Your task to perform on an android device: Search for the best movies of 2019  Image 0: 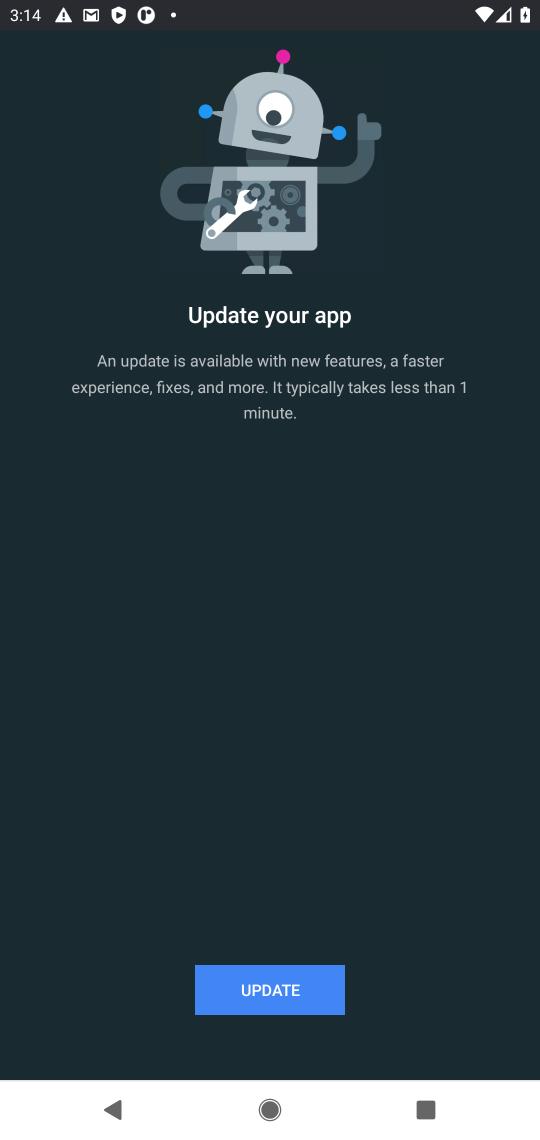
Step 0: press home button
Your task to perform on an android device: Search for the best movies of 2019  Image 1: 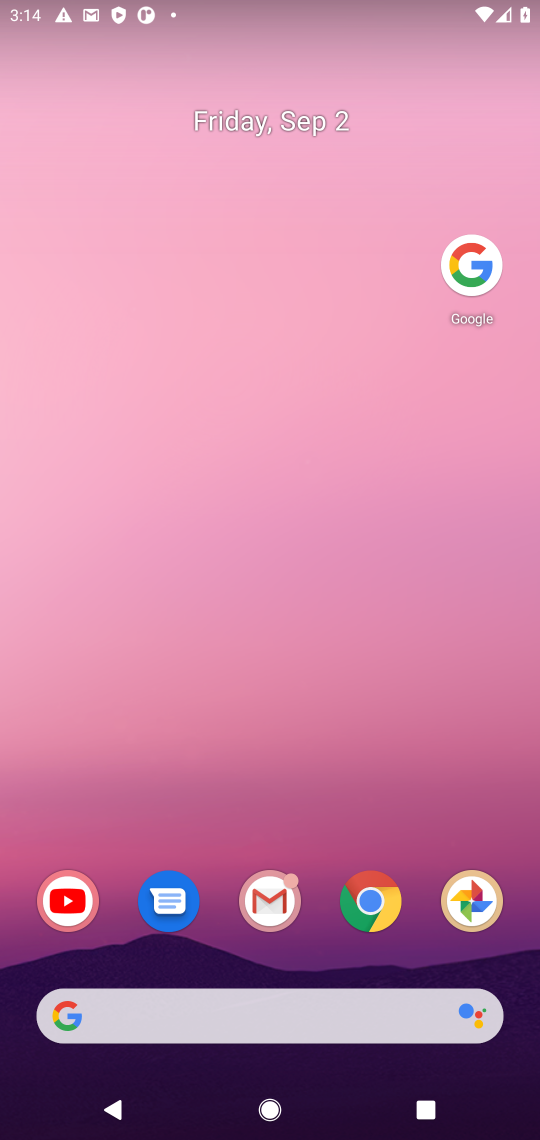
Step 1: click (467, 257)
Your task to perform on an android device: Search for the best movies of 2019  Image 2: 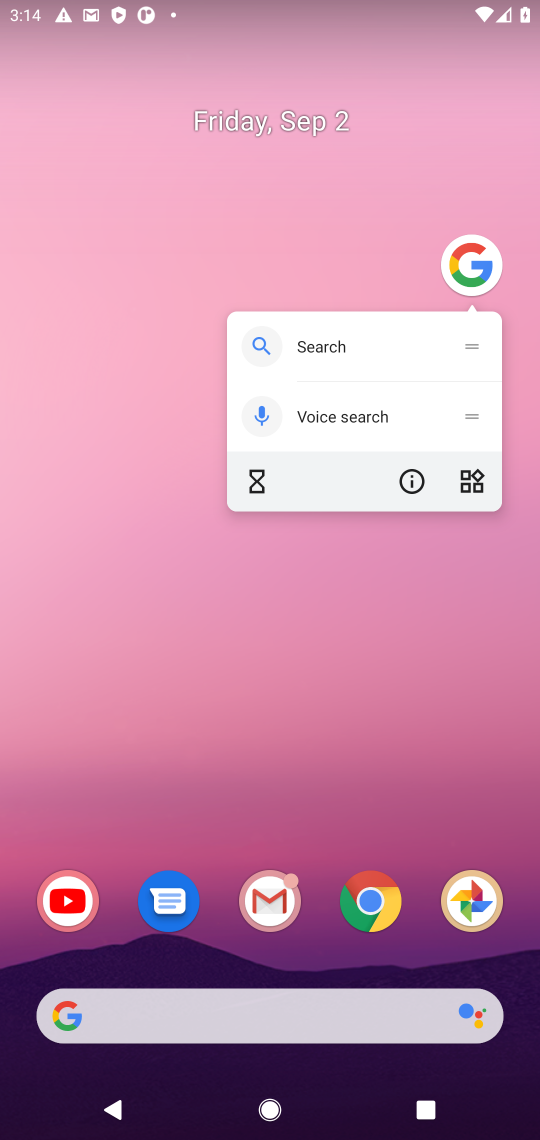
Step 2: click (483, 241)
Your task to perform on an android device: Search for the best movies of 2019  Image 3: 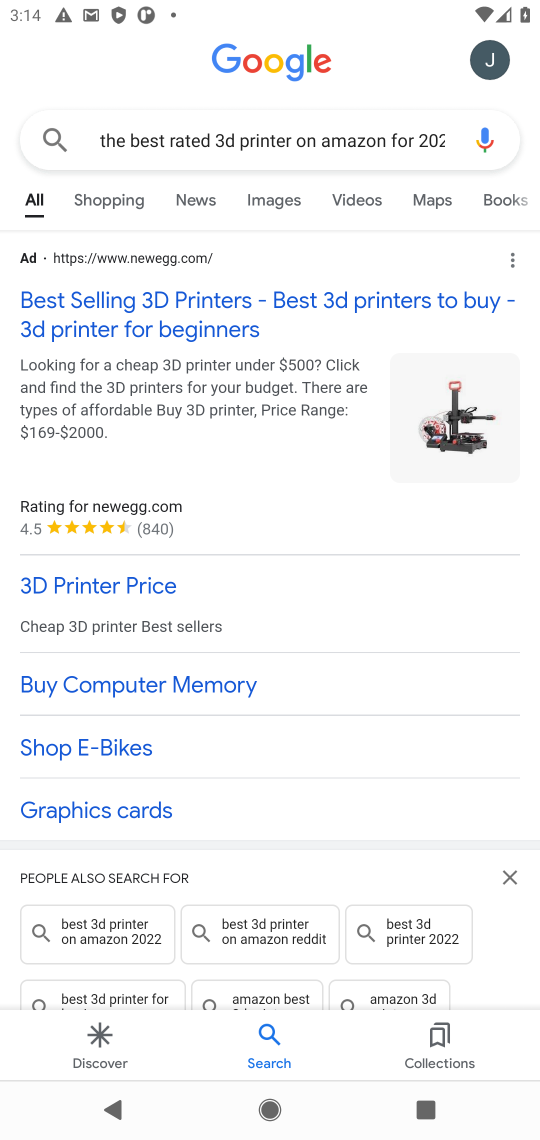
Step 3: click (318, 141)
Your task to perform on an android device: Search for the best movies of 2019  Image 4: 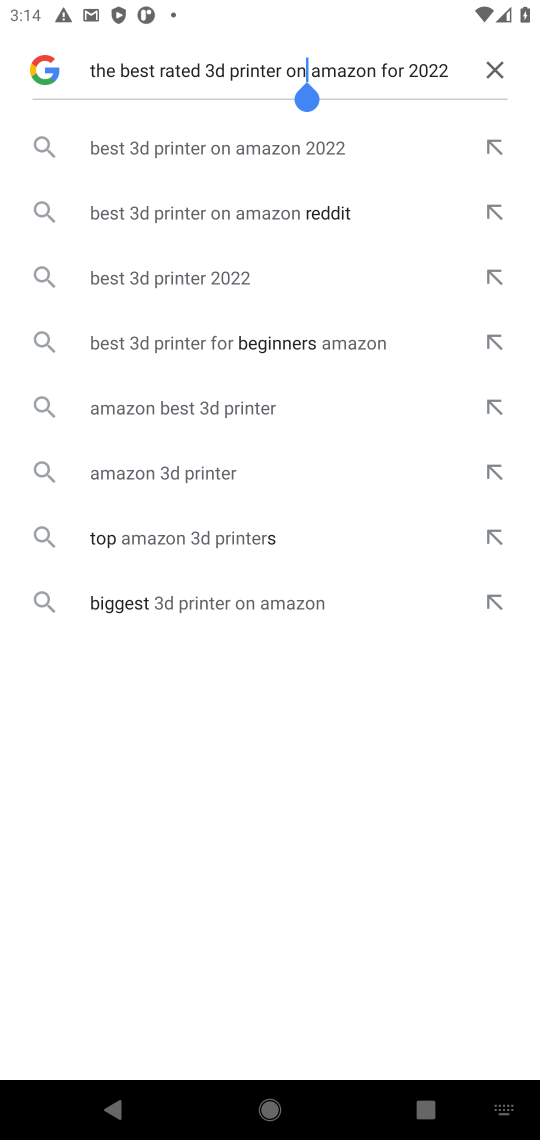
Step 4: click (497, 78)
Your task to perform on an android device: Search for the best movies of 2019  Image 5: 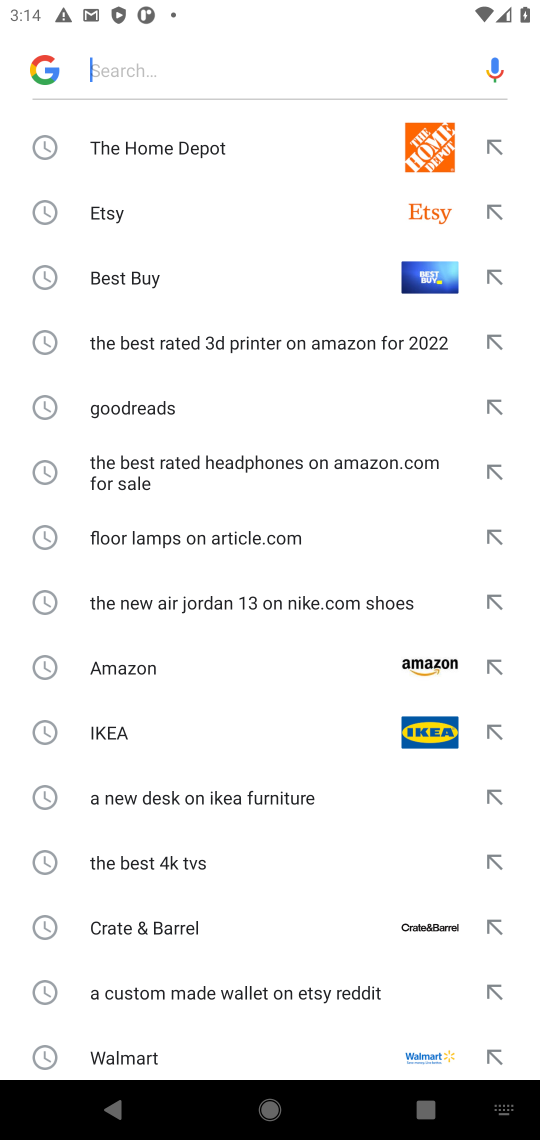
Step 5: click (217, 77)
Your task to perform on an android device: Search for the best movies of 2019  Image 6: 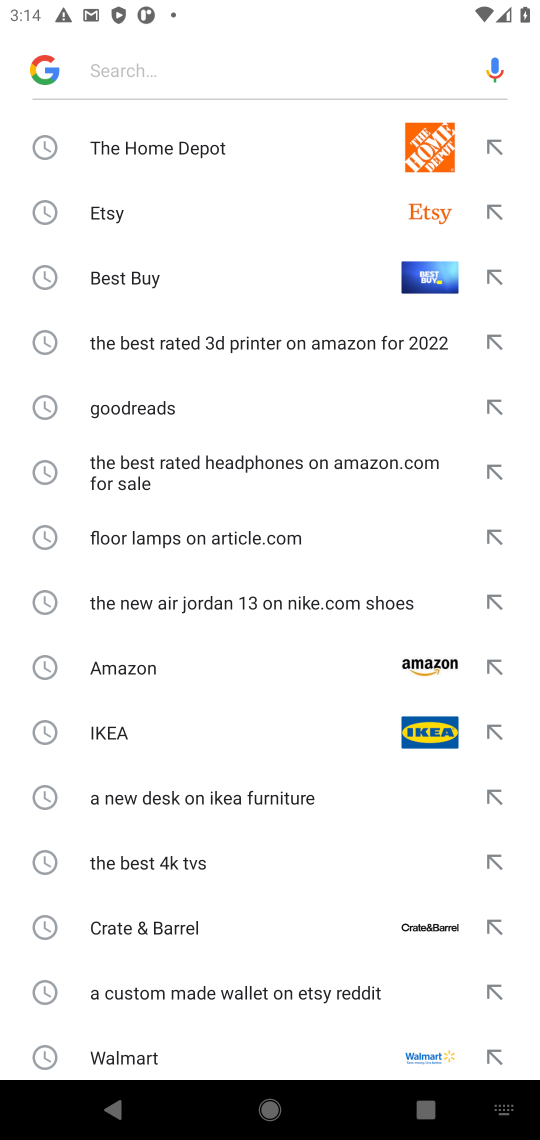
Step 6: type " the best movies of 2019 "
Your task to perform on an android device: Search for the best movies of 2019  Image 7: 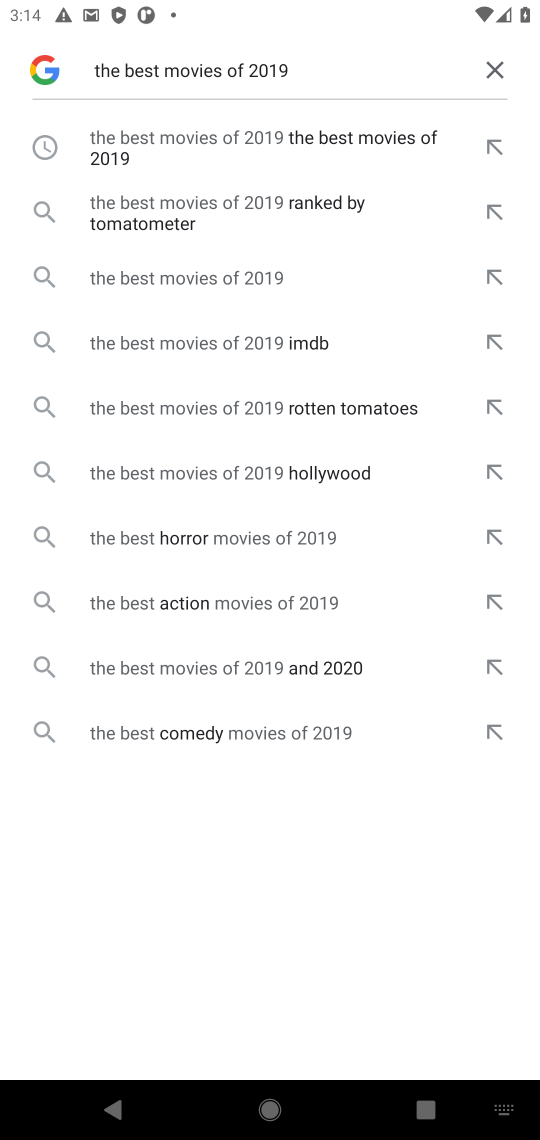
Step 7: click (227, 150)
Your task to perform on an android device: Search for the best movies of 2019  Image 8: 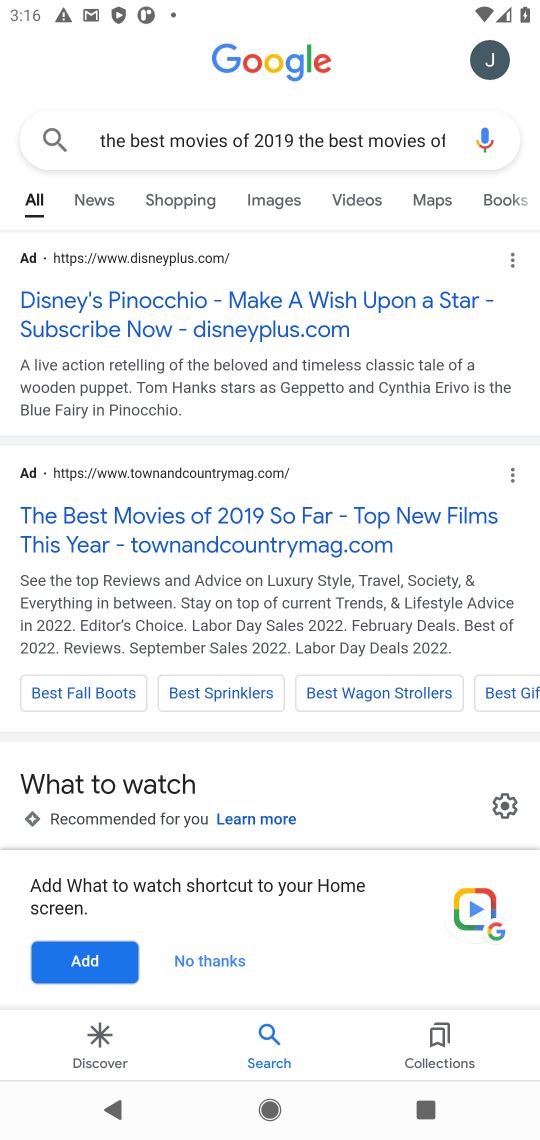
Step 8: task complete